Your task to perform on an android device: delete browsing data in the chrome app Image 0: 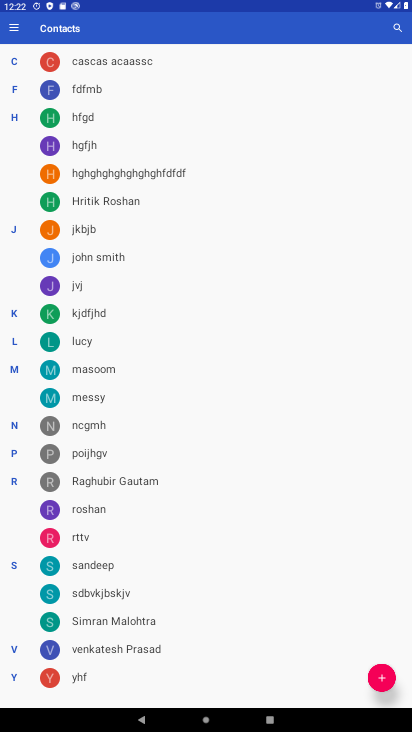
Step 0: drag from (224, 722) to (226, 214)
Your task to perform on an android device: delete browsing data in the chrome app Image 1: 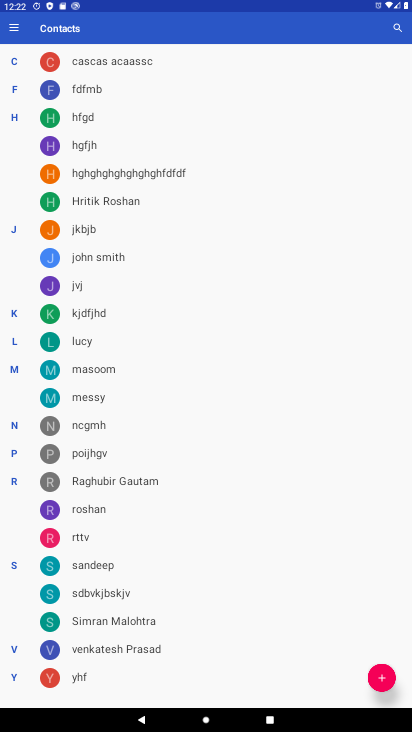
Step 1: press home button
Your task to perform on an android device: delete browsing data in the chrome app Image 2: 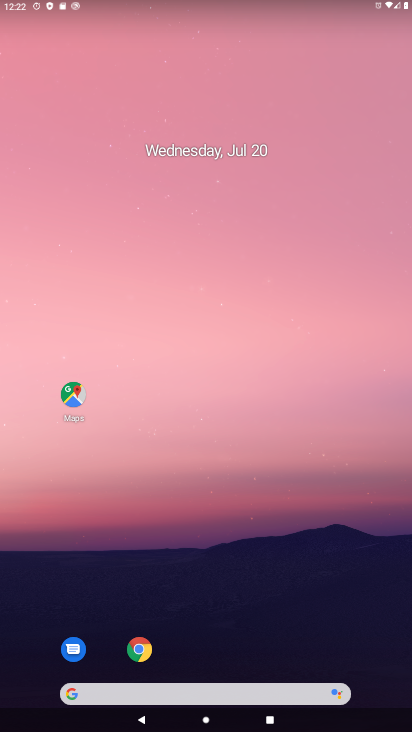
Step 2: drag from (221, 725) to (254, 221)
Your task to perform on an android device: delete browsing data in the chrome app Image 3: 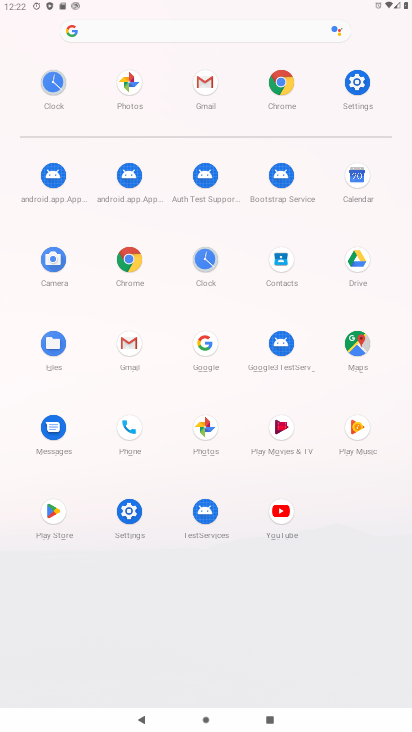
Step 3: click (130, 260)
Your task to perform on an android device: delete browsing data in the chrome app Image 4: 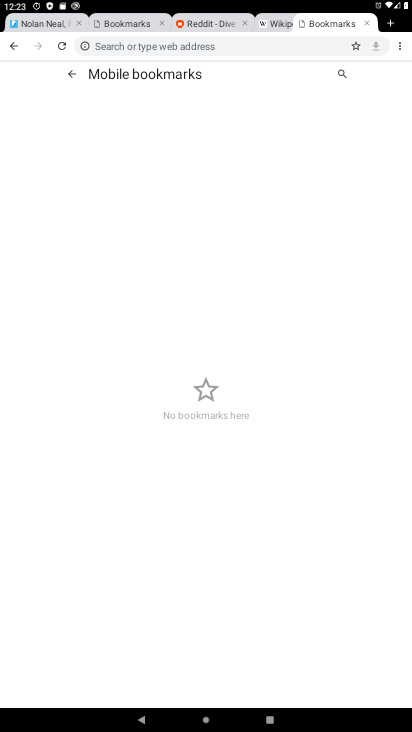
Step 4: click (400, 49)
Your task to perform on an android device: delete browsing data in the chrome app Image 5: 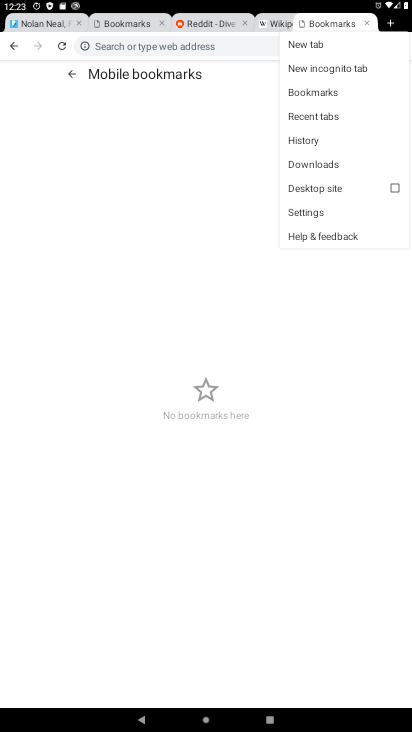
Step 5: click (304, 137)
Your task to perform on an android device: delete browsing data in the chrome app Image 6: 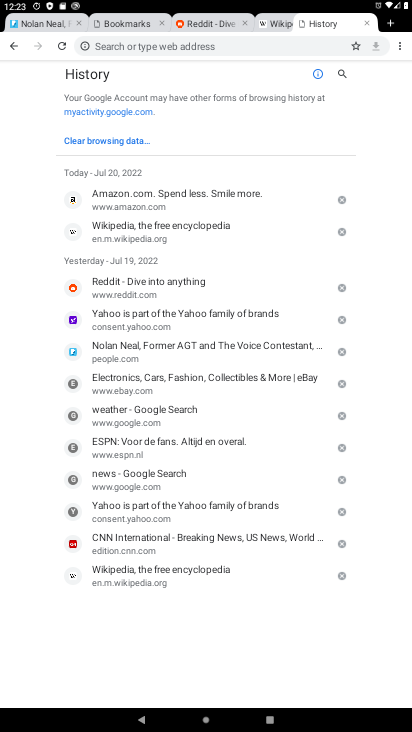
Step 6: click (122, 135)
Your task to perform on an android device: delete browsing data in the chrome app Image 7: 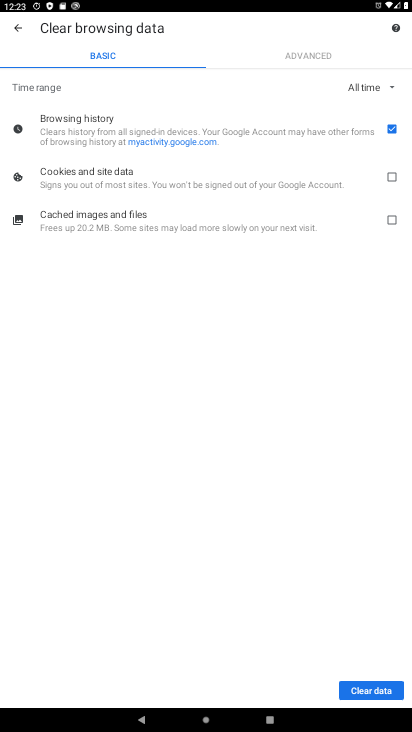
Step 7: click (374, 690)
Your task to perform on an android device: delete browsing data in the chrome app Image 8: 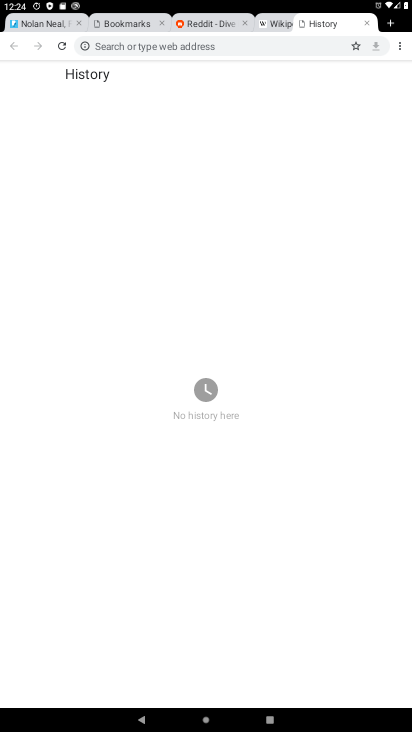
Step 8: task complete